Your task to perform on an android device: turn off location Image 0: 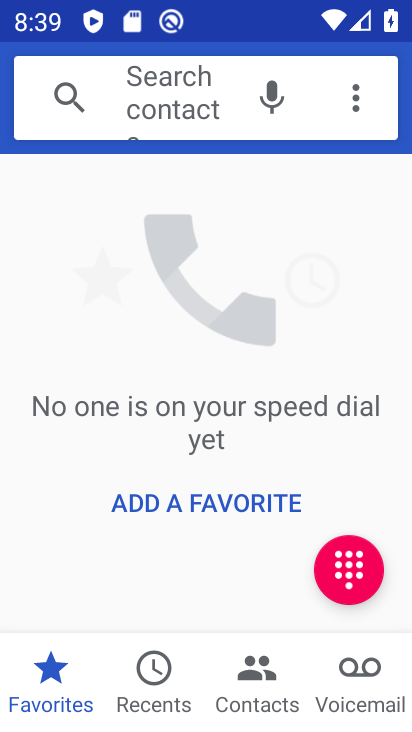
Step 0: press home button
Your task to perform on an android device: turn off location Image 1: 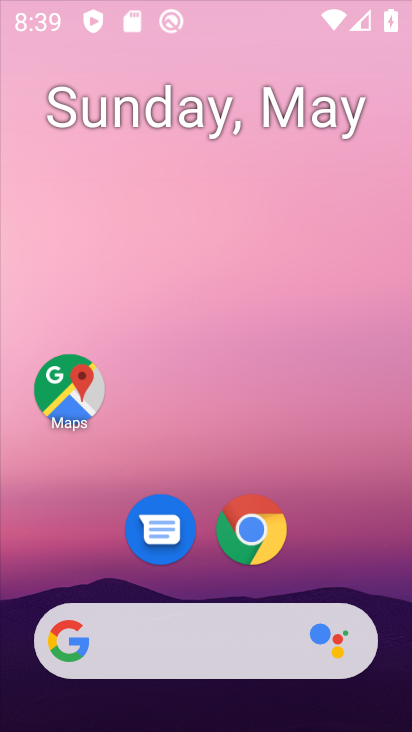
Step 1: drag from (354, 545) to (346, 3)
Your task to perform on an android device: turn off location Image 2: 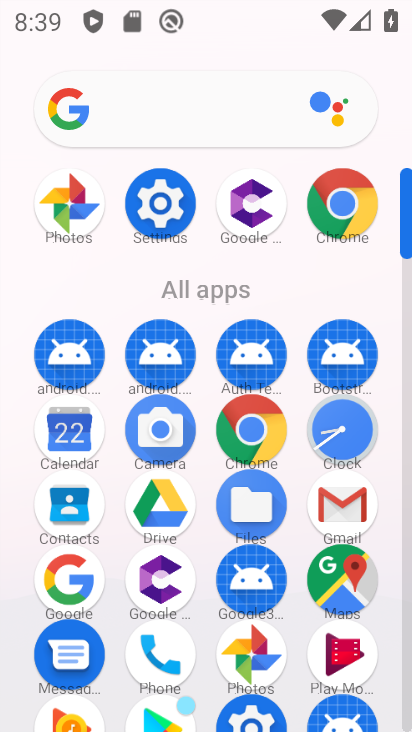
Step 2: click (160, 190)
Your task to perform on an android device: turn off location Image 3: 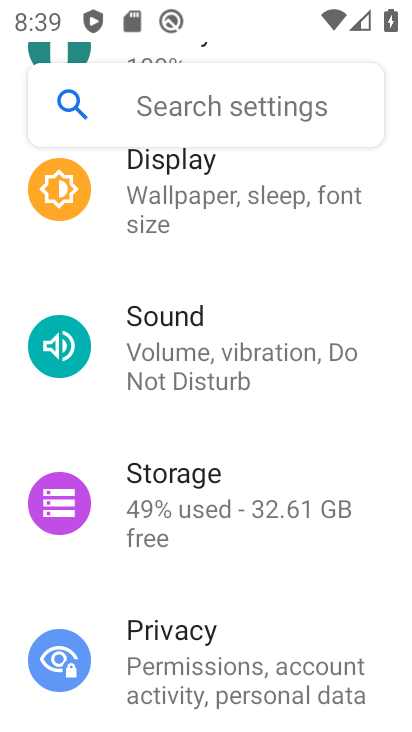
Step 3: drag from (249, 479) to (316, 159)
Your task to perform on an android device: turn off location Image 4: 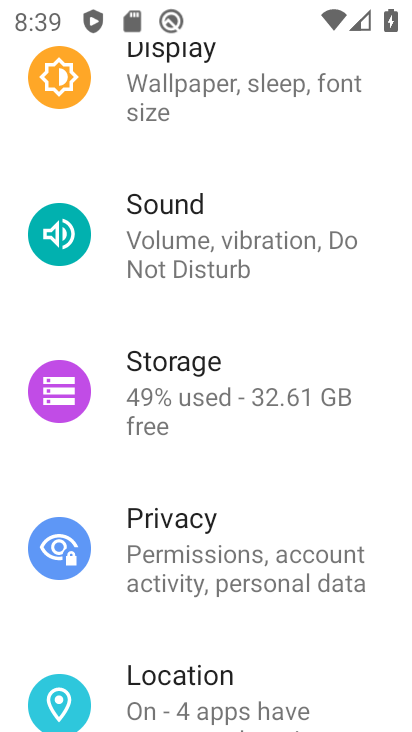
Step 4: click (170, 661)
Your task to perform on an android device: turn off location Image 5: 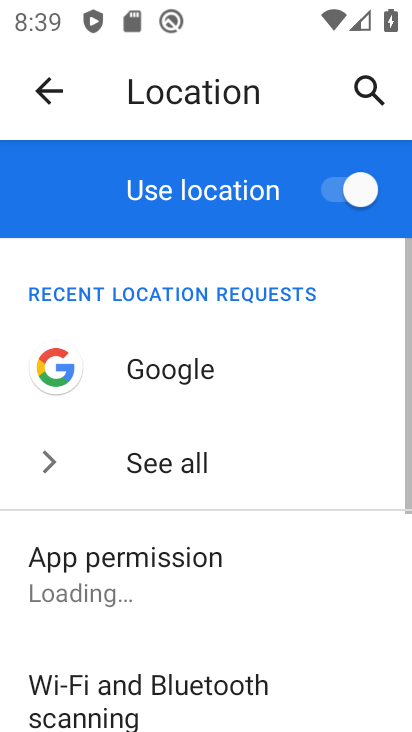
Step 5: click (360, 170)
Your task to perform on an android device: turn off location Image 6: 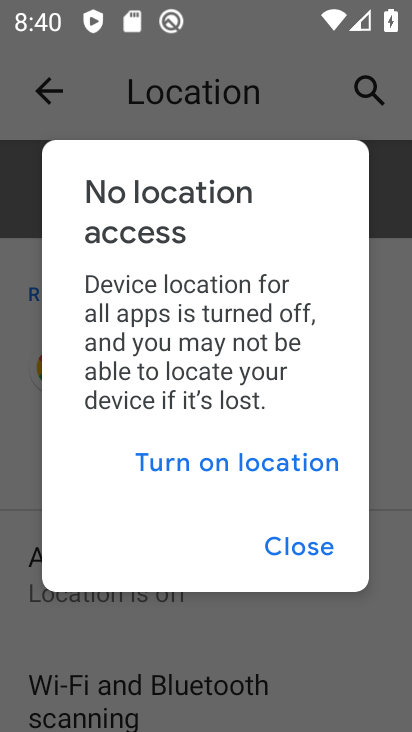
Step 6: click (293, 550)
Your task to perform on an android device: turn off location Image 7: 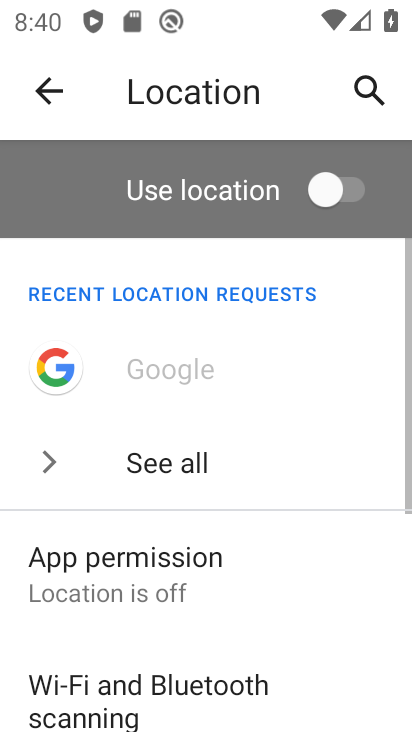
Step 7: task complete